Your task to perform on an android device: change text size in settings app Image 0: 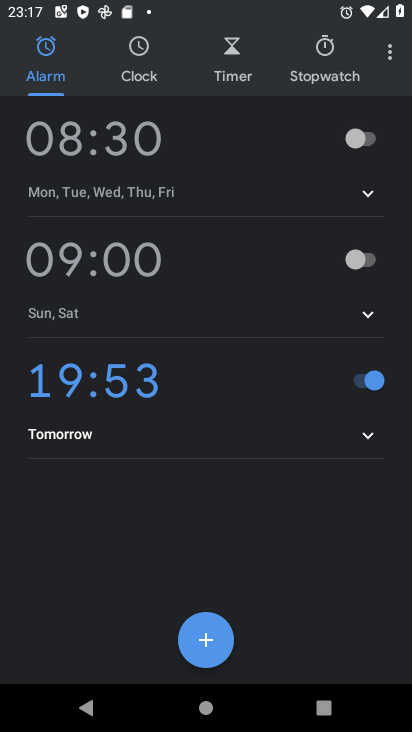
Step 0: press home button
Your task to perform on an android device: change text size in settings app Image 1: 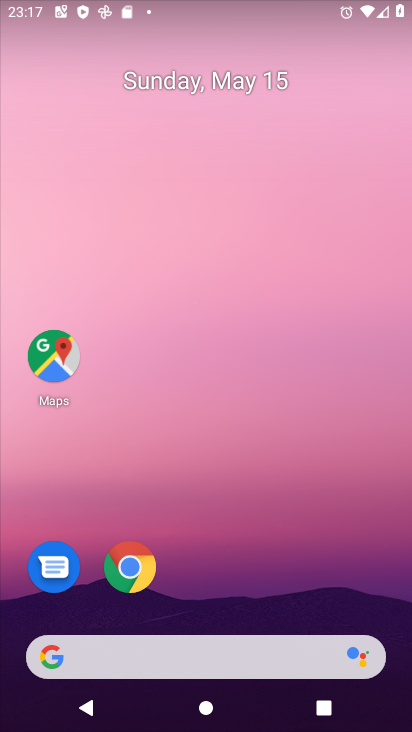
Step 1: drag from (146, 721) to (179, 59)
Your task to perform on an android device: change text size in settings app Image 2: 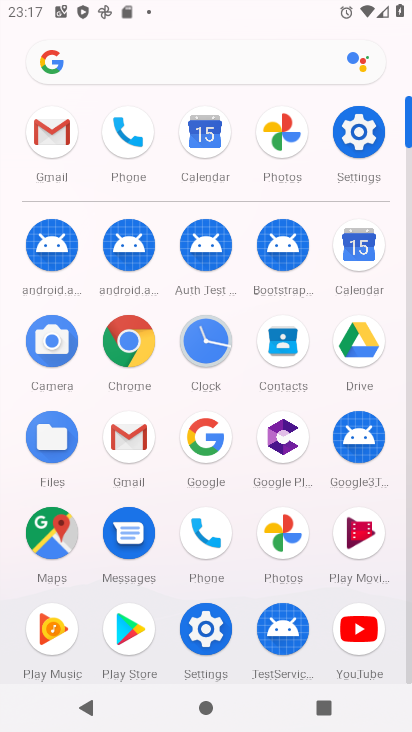
Step 2: click (355, 141)
Your task to perform on an android device: change text size in settings app Image 3: 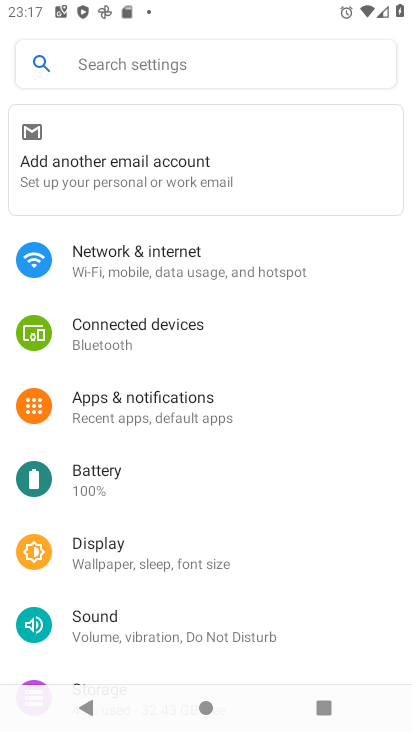
Step 3: click (173, 565)
Your task to perform on an android device: change text size in settings app Image 4: 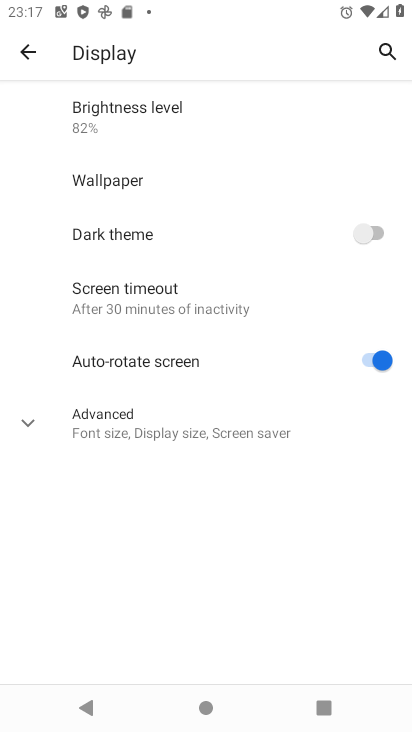
Step 4: click (189, 433)
Your task to perform on an android device: change text size in settings app Image 5: 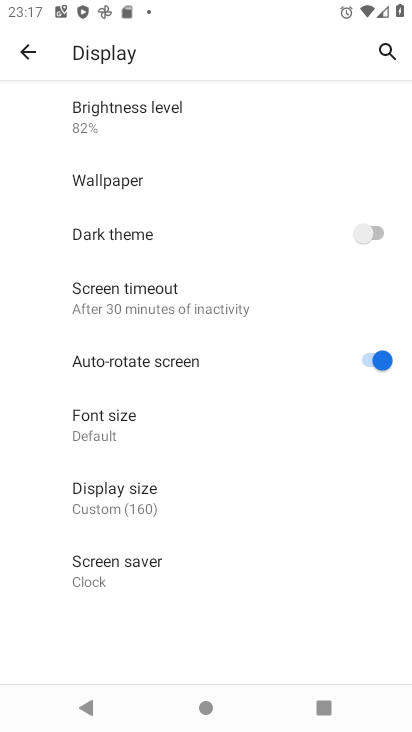
Step 5: click (156, 424)
Your task to perform on an android device: change text size in settings app Image 6: 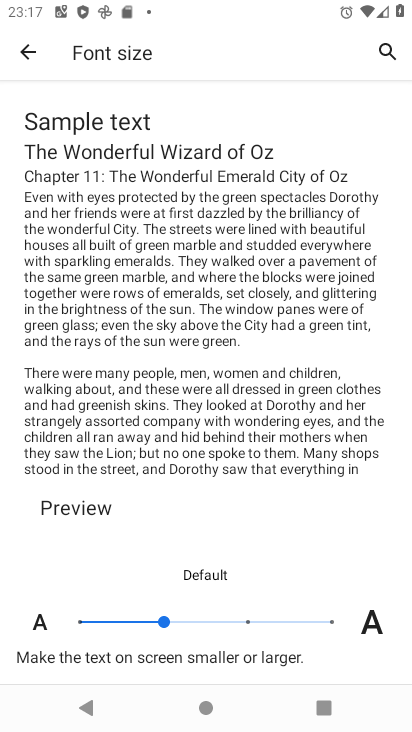
Step 6: click (120, 623)
Your task to perform on an android device: change text size in settings app Image 7: 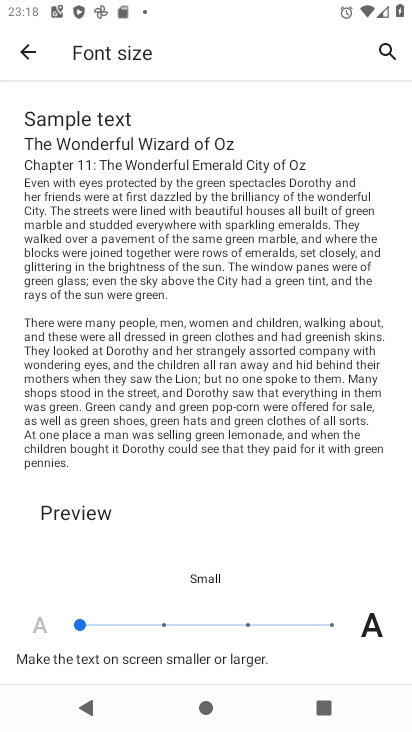
Step 7: task complete